Your task to perform on an android device: Open the phone app and click the voicemail tab. Image 0: 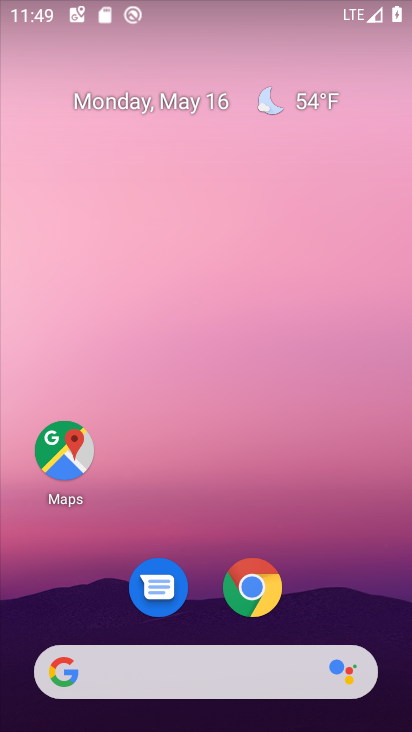
Step 0: drag from (205, 606) to (241, 8)
Your task to perform on an android device: Open the phone app and click the voicemail tab. Image 1: 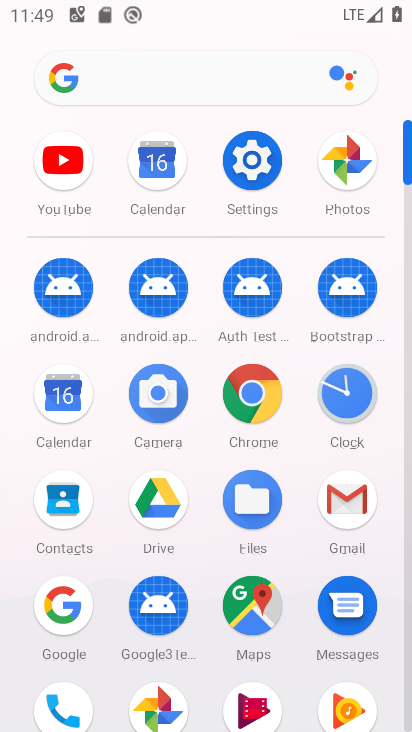
Step 1: drag from (89, 631) to (119, 426)
Your task to perform on an android device: Open the phone app and click the voicemail tab. Image 2: 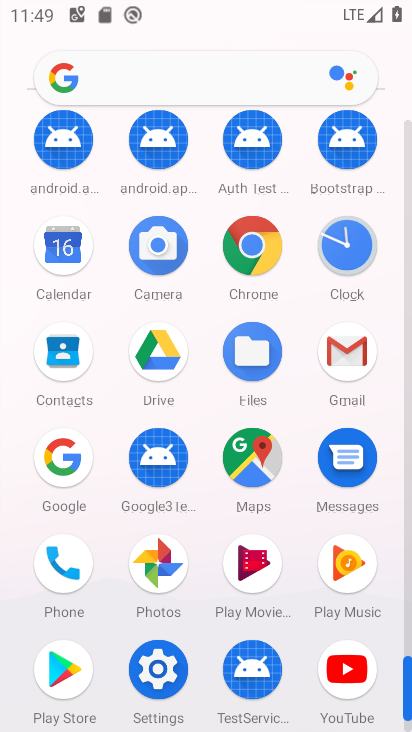
Step 2: click (60, 574)
Your task to perform on an android device: Open the phone app and click the voicemail tab. Image 3: 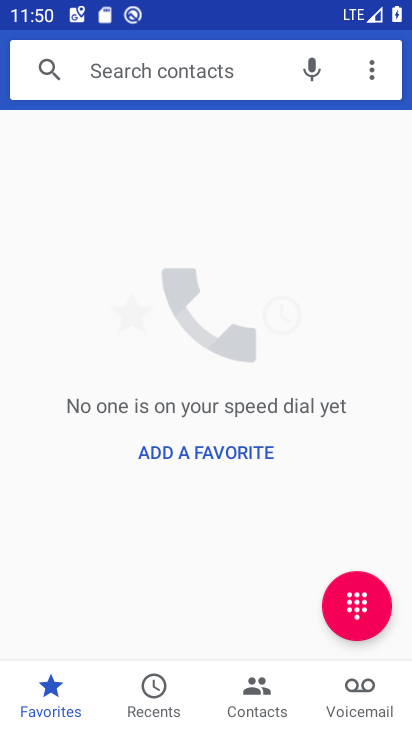
Step 3: click (354, 695)
Your task to perform on an android device: Open the phone app and click the voicemail tab. Image 4: 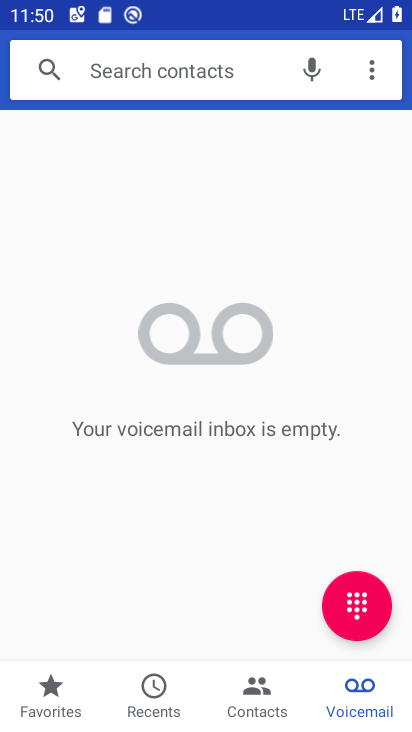
Step 4: task complete